Your task to perform on an android device: Go to network settings Image 0: 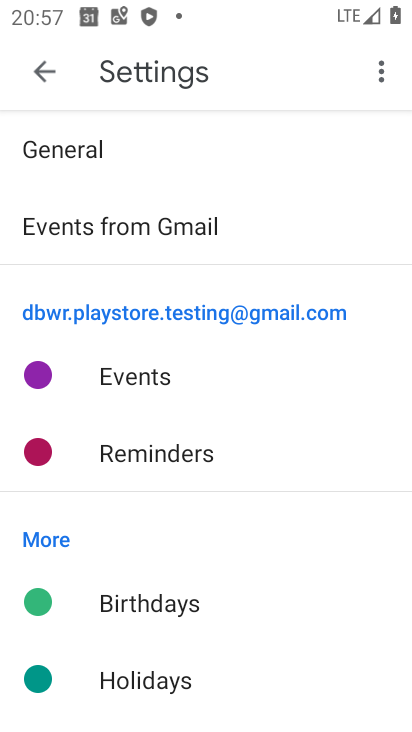
Step 0: press home button
Your task to perform on an android device: Go to network settings Image 1: 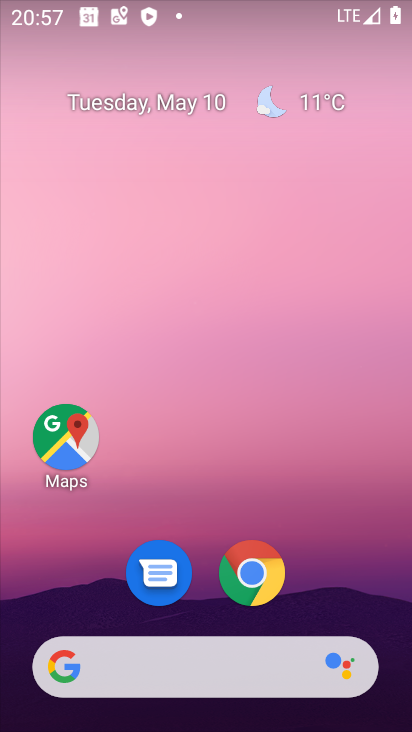
Step 1: drag from (337, 615) to (329, 5)
Your task to perform on an android device: Go to network settings Image 2: 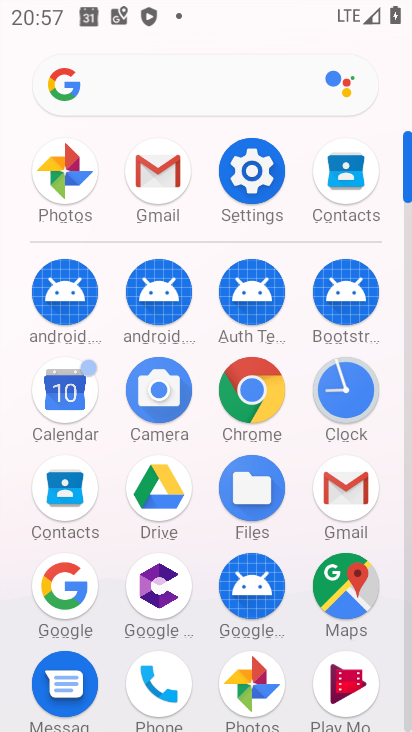
Step 2: click (250, 172)
Your task to perform on an android device: Go to network settings Image 3: 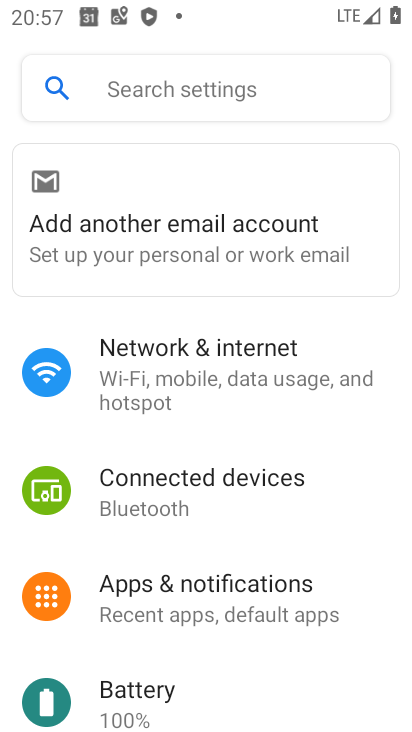
Step 3: click (159, 388)
Your task to perform on an android device: Go to network settings Image 4: 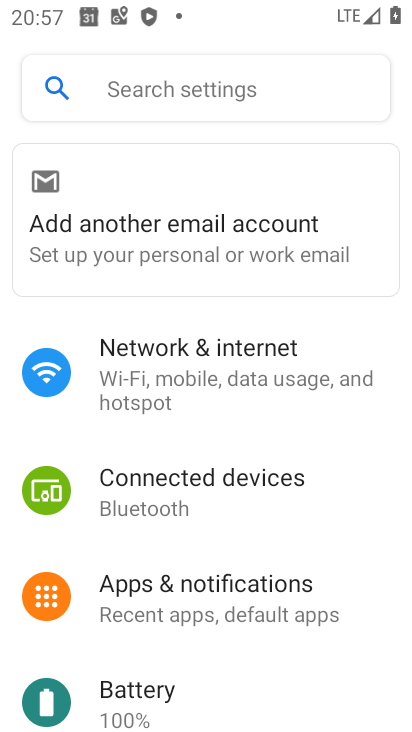
Step 4: click (153, 377)
Your task to perform on an android device: Go to network settings Image 5: 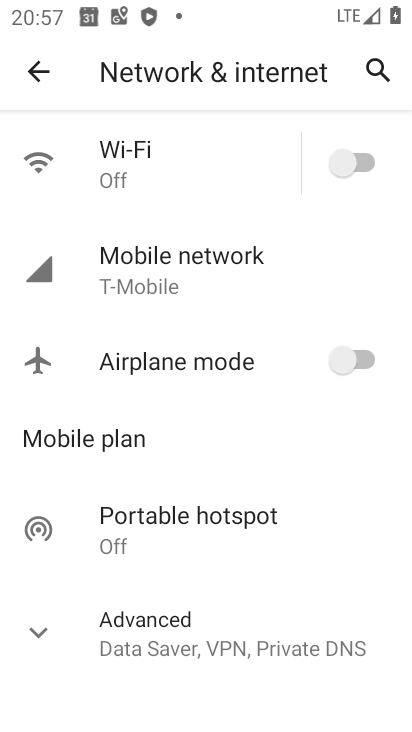
Step 5: click (146, 269)
Your task to perform on an android device: Go to network settings Image 6: 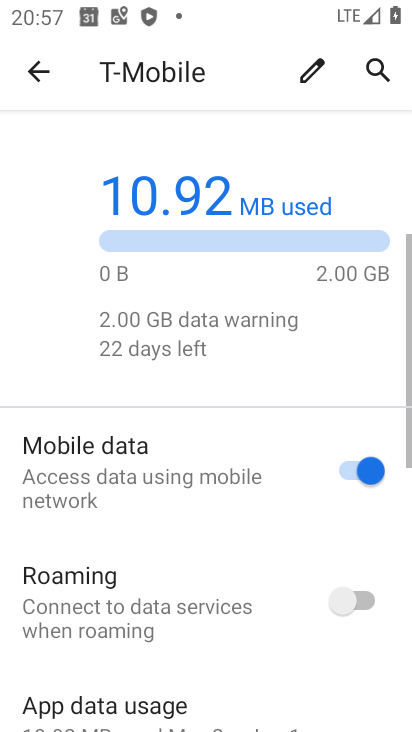
Step 6: drag from (175, 587) to (159, 187)
Your task to perform on an android device: Go to network settings Image 7: 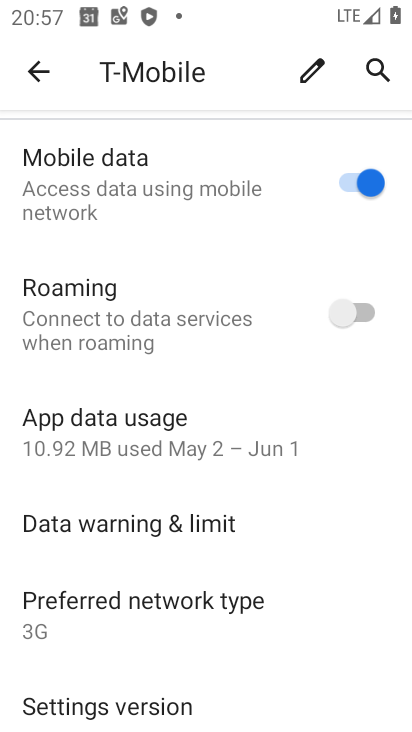
Step 7: drag from (151, 588) to (149, 179)
Your task to perform on an android device: Go to network settings Image 8: 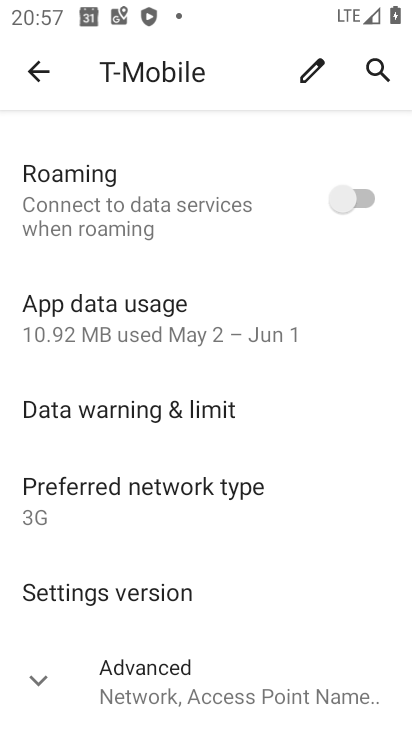
Step 8: click (38, 681)
Your task to perform on an android device: Go to network settings Image 9: 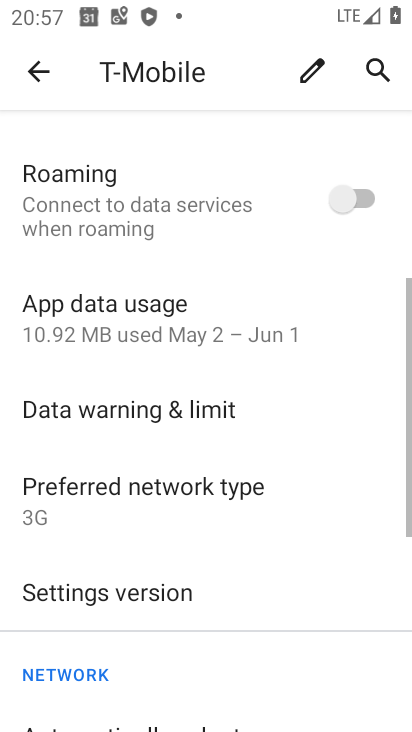
Step 9: task complete